Your task to perform on an android device: What's on the menu at Five Guys? Image 0: 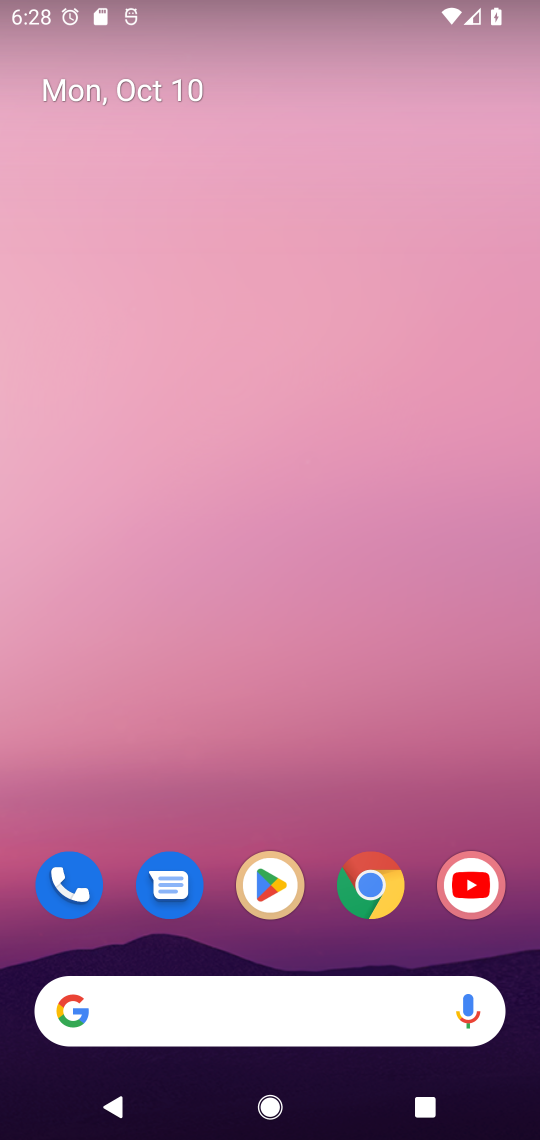
Step 0: click (374, 890)
Your task to perform on an android device: What's on the menu at Five Guys? Image 1: 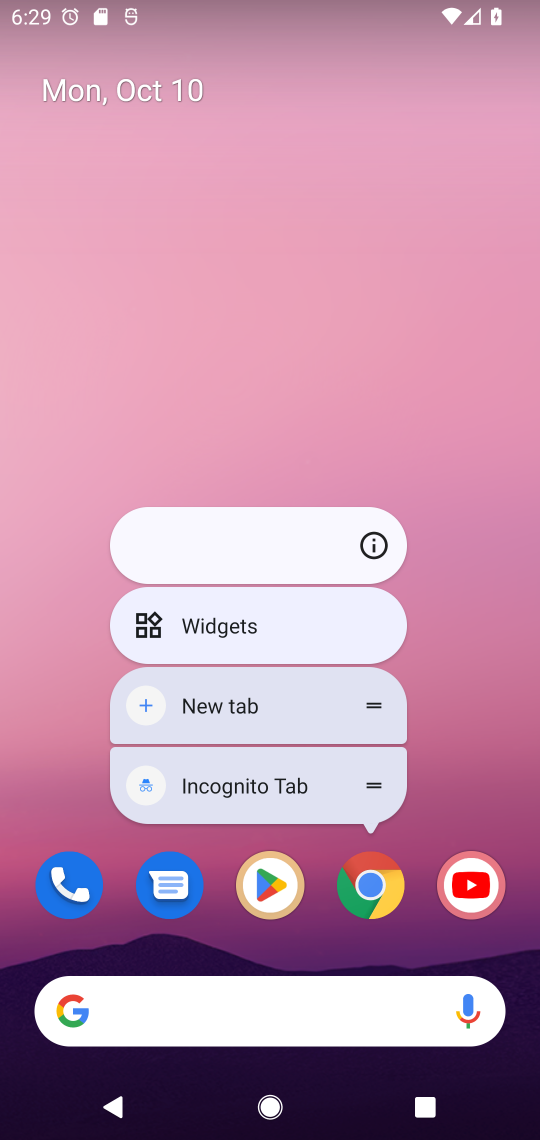
Step 1: click (453, 790)
Your task to perform on an android device: What's on the menu at Five Guys? Image 2: 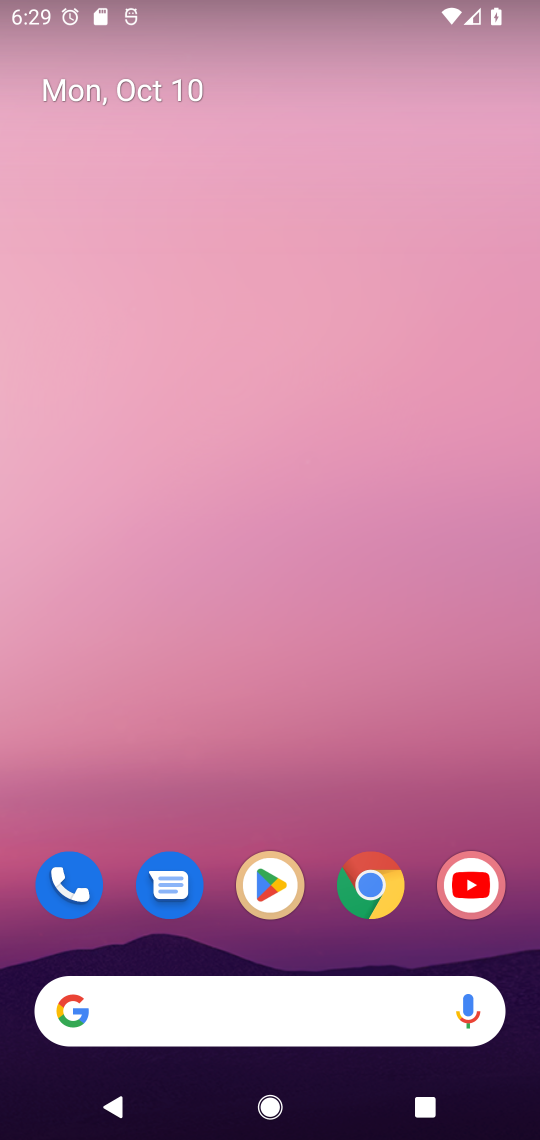
Step 2: click (378, 876)
Your task to perform on an android device: What's on the menu at Five Guys? Image 3: 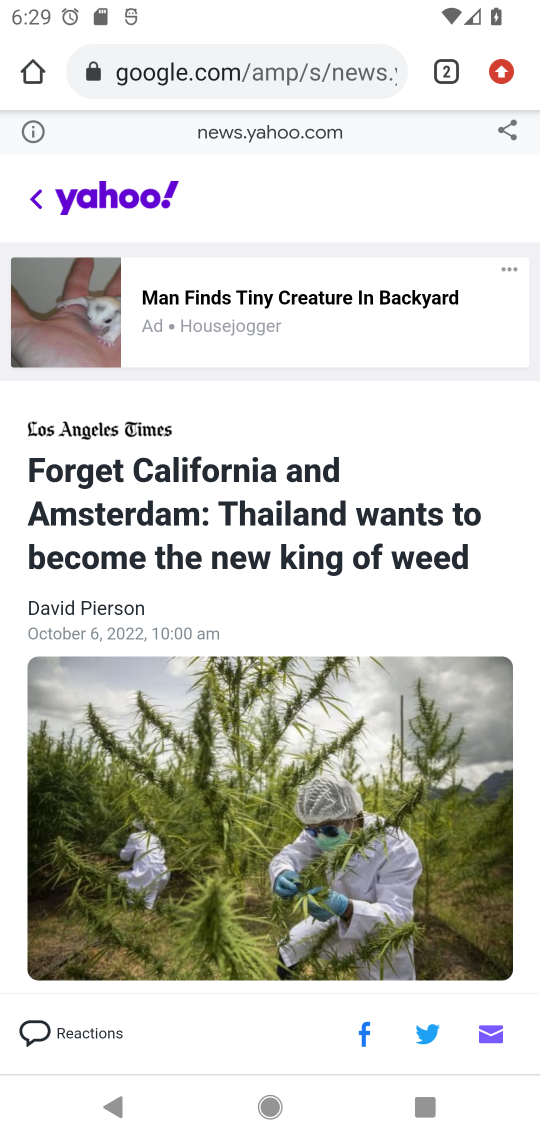
Step 3: click (294, 70)
Your task to perform on an android device: What's on the menu at Five Guys? Image 4: 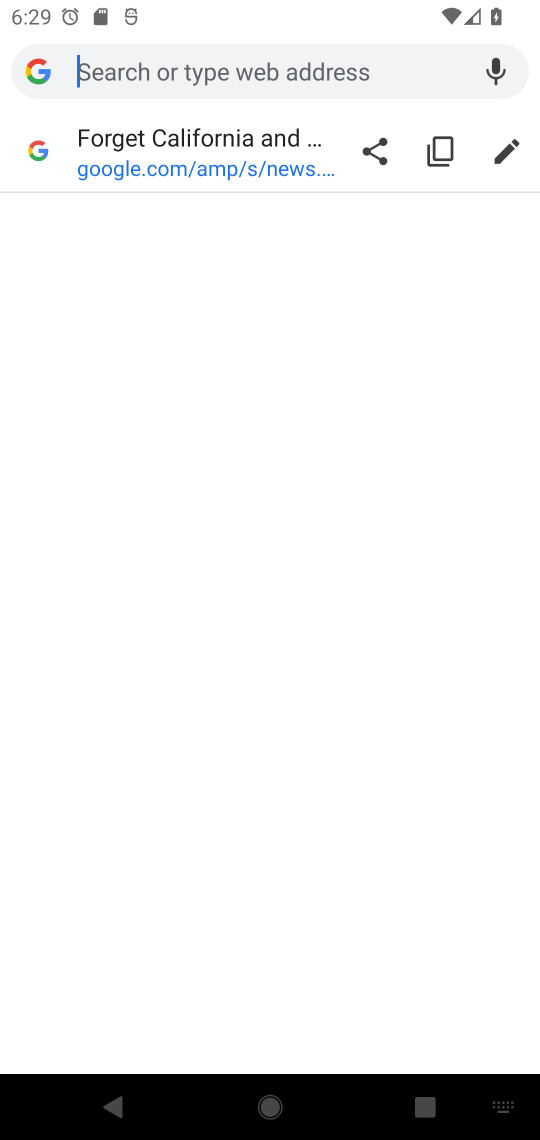
Step 4: type "menu at Five Guys"
Your task to perform on an android device: What's on the menu at Five Guys? Image 5: 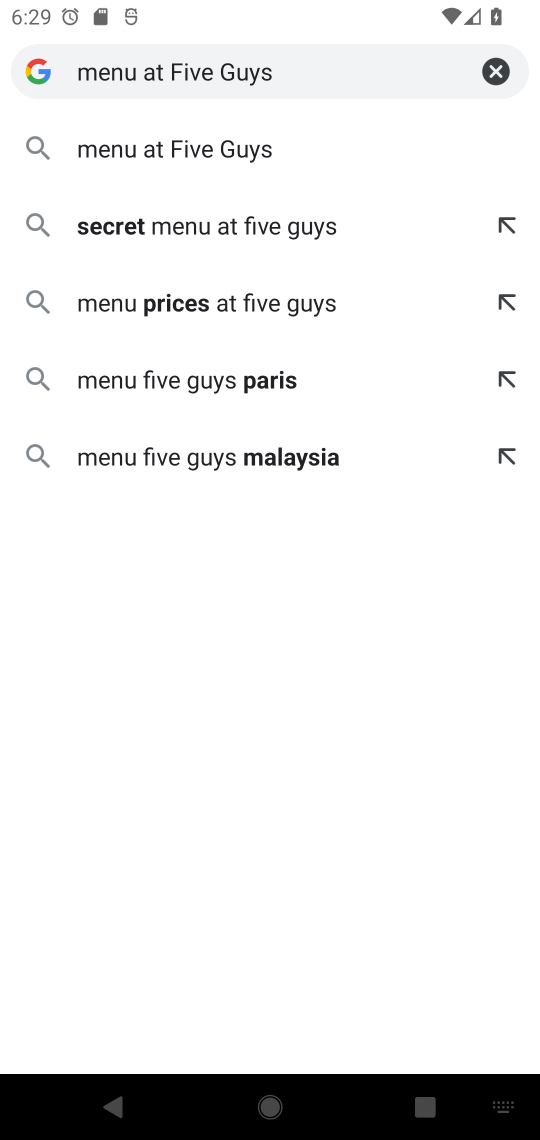
Step 5: click (212, 152)
Your task to perform on an android device: What's on the menu at Five Guys? Image 6: 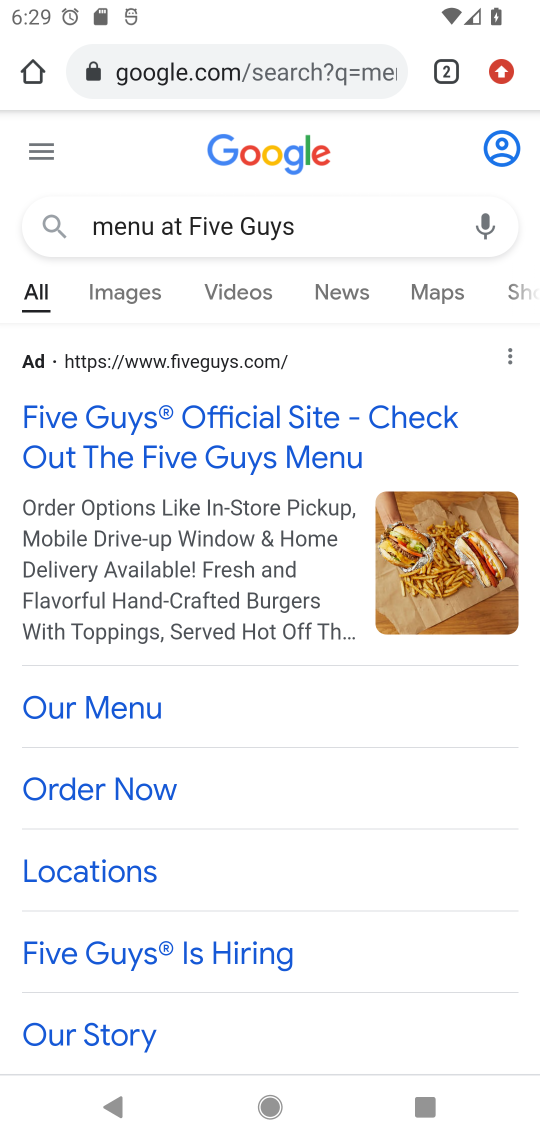
Step 6: click (194, 423)
Your task to perform on an android device: What's on the menu at Five Guys? Image 7: 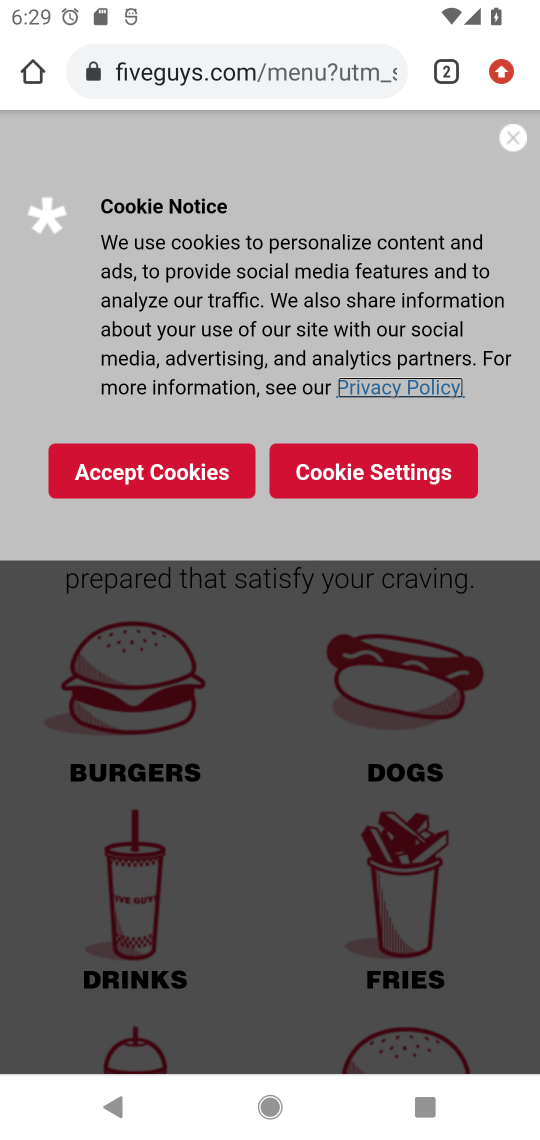
Step 7: click (517, 145)
Your task to perform on an android device: What's on the menu at Five Guys? Image 8: 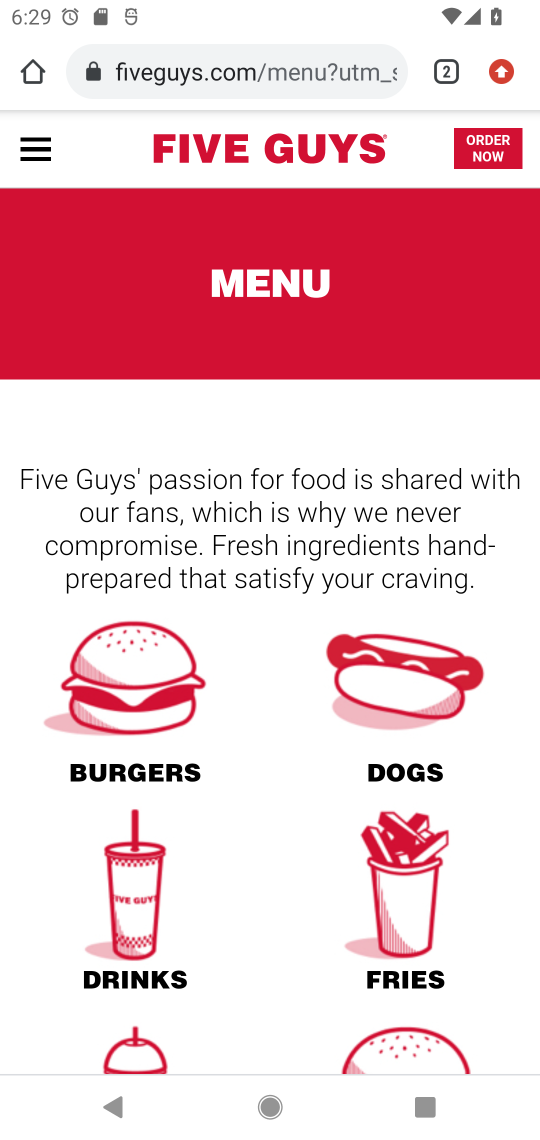
Step 8: task complete